Your task to perform on an android device: What's the weather going to be this weekend? Image 0: 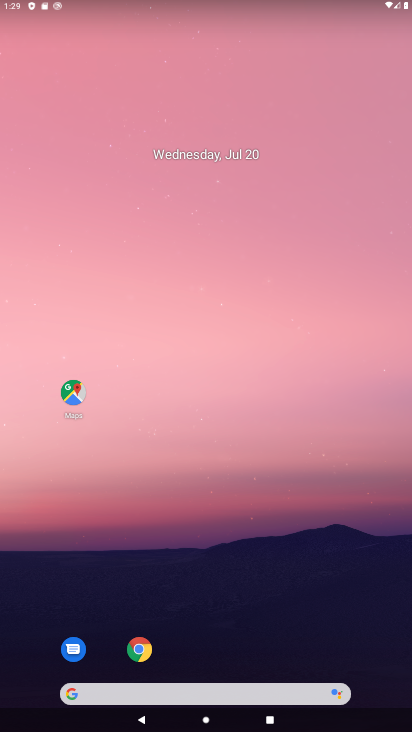
Step 0: drag from (260, 522) to (309, 335)
Your task to perform on an android device: What's the weather going to be this weekend? Image 1: 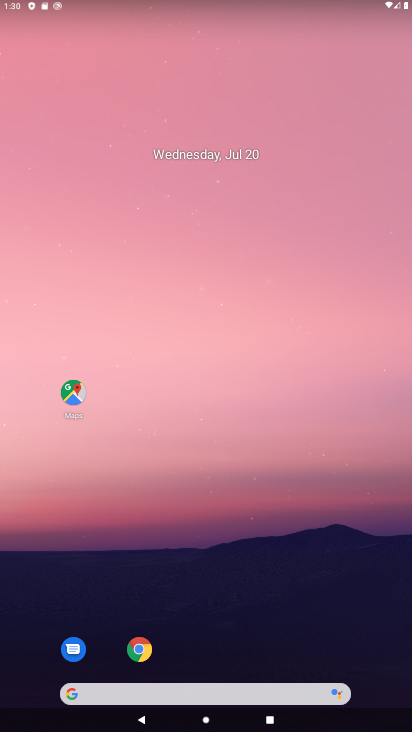
Step 1: drag from (278, 474) to (319, 228)
Your task to perform on an android device: What's the weather going to be this weekend? Image 2: 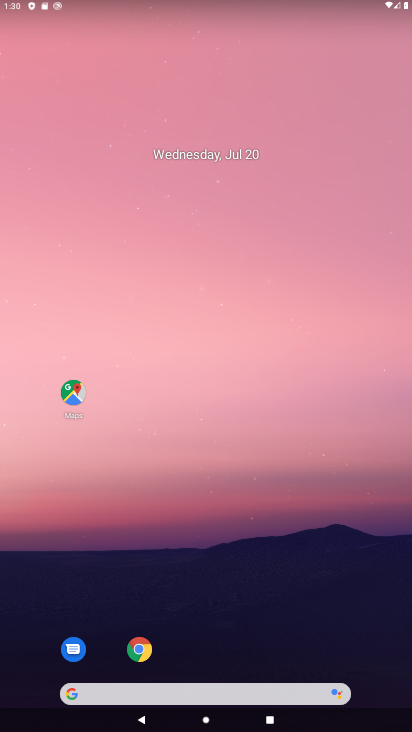
Step 2: drag from (294, 487) to (404, 470)
Your task to perform on an android device: What's the weather going to be this weekend? Image 3: 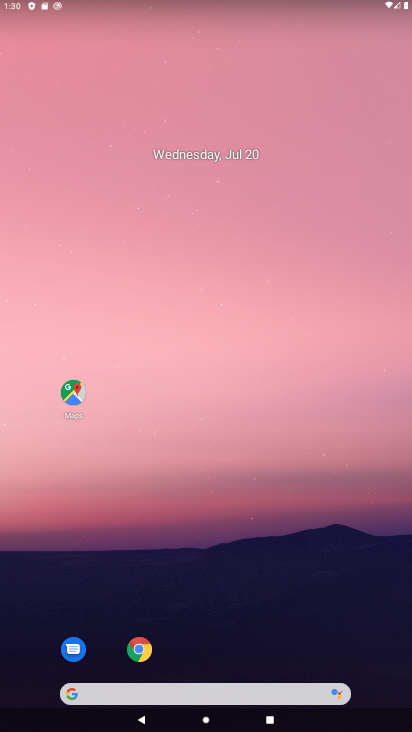
Step 3: drag from (334, 493) to (408, 125)
Your task to perform on an android device: What's the weather going to be this weekend? Image 4: 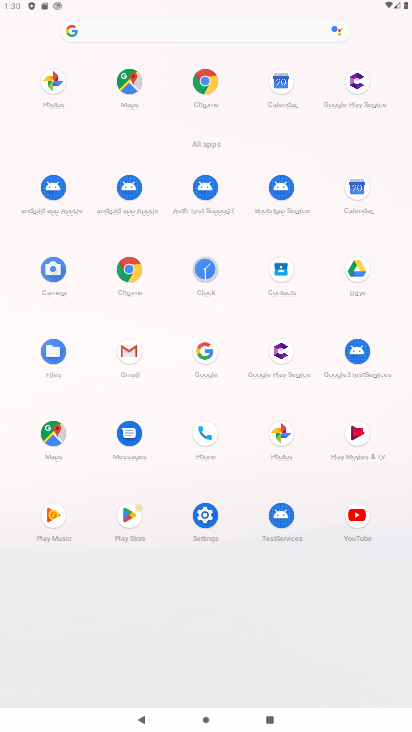
Step 4: click (358, 181)
Your task to perform on an android device: What's the weather going to be this weekend? Image 5: 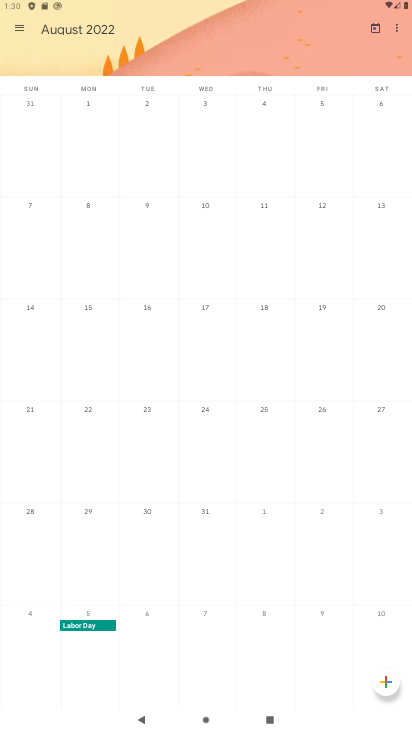
Step 5: task complete